Your task to perform on an android device: Is it going to rain tomorrow? Image 0: 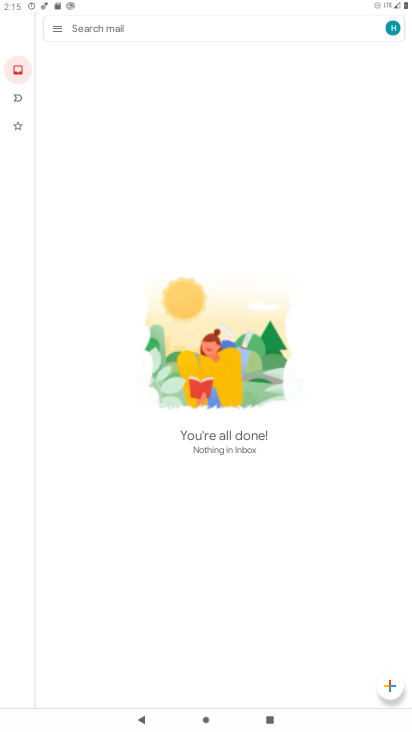
Step 0: press home button
Your task to perform on an android device: Is it going to rain tomorrow? Image 1: 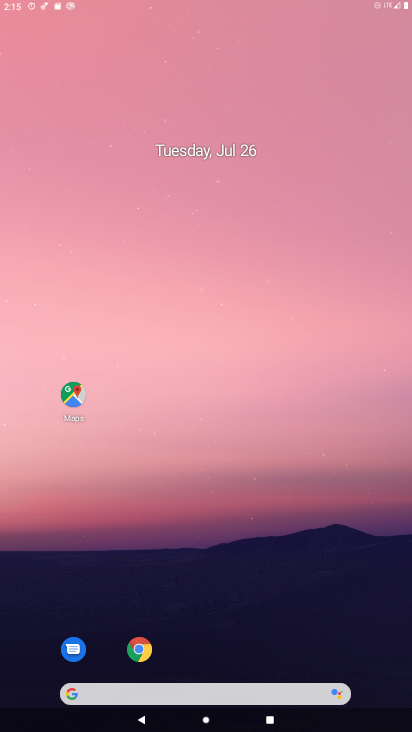
Step 1: drag from (312, 421) to (184, 50)
Your task to perform on an android device: Is it going to rain tomorrow? Image 2: 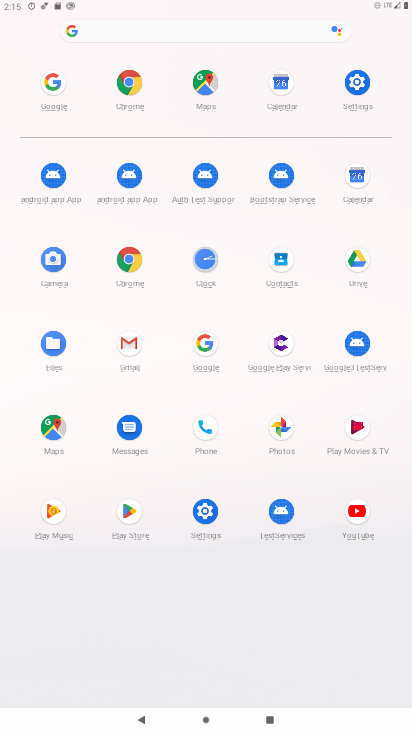
Step 2: click (205, 350)
Your task to perform on an android device: Is it going to rain tomorrow? Image 3: 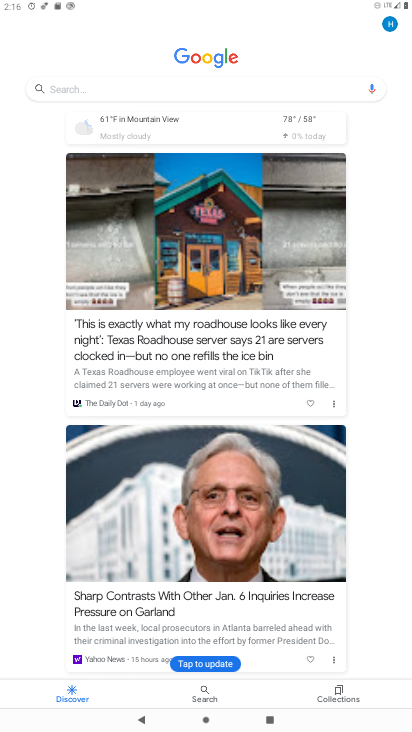
Step 3: click (75, 94)
Your task to perform on an android device: Is it going to rain tomorrow? Image 4: 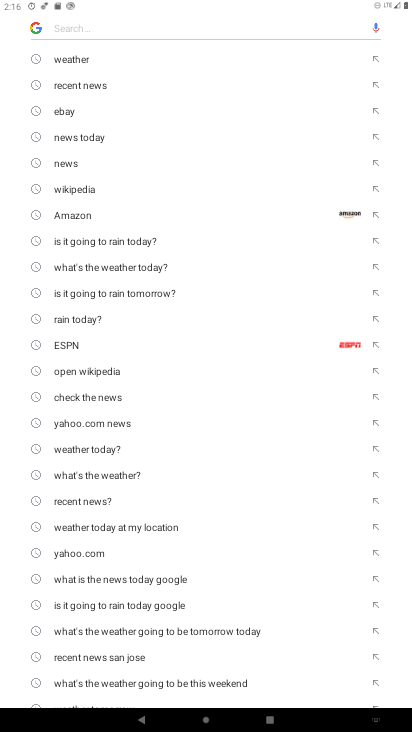
Step 4: type "Is it going to rain tomorrow?"
Your task to perform on an android device: Is it going to rain tomorrow? Image 5: 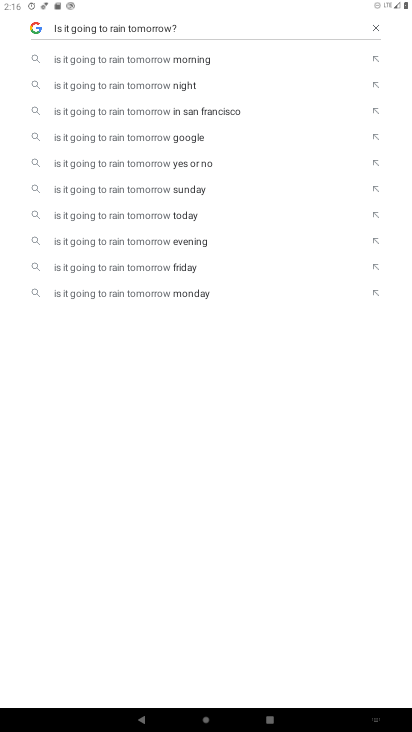
Step 5: click (155, 223)
Your task to perform on an android device: Is it going to rain tomorrow? Image 6: 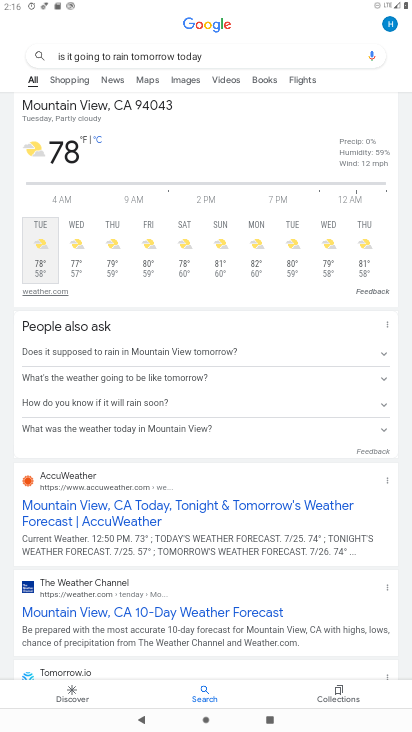
Step 6: task complete